Your task to perform on an android device: open a bookmark in the chrome app Image 0: 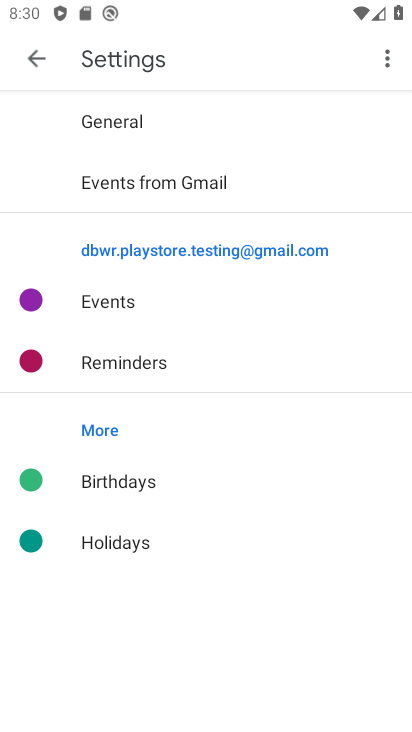
Step 0: press home button
Your task to perform on an android device: open a bookmark in the chrome app Image 1: 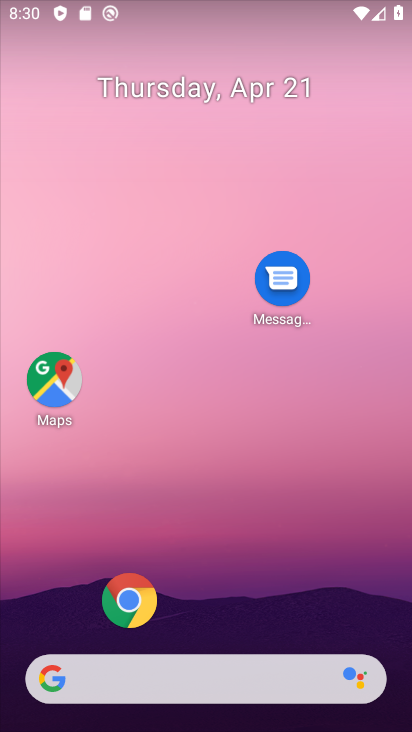
Step 1: click (128, 595)
Your task to perform on an android device: open a bookmark in the chrome app Image 2: 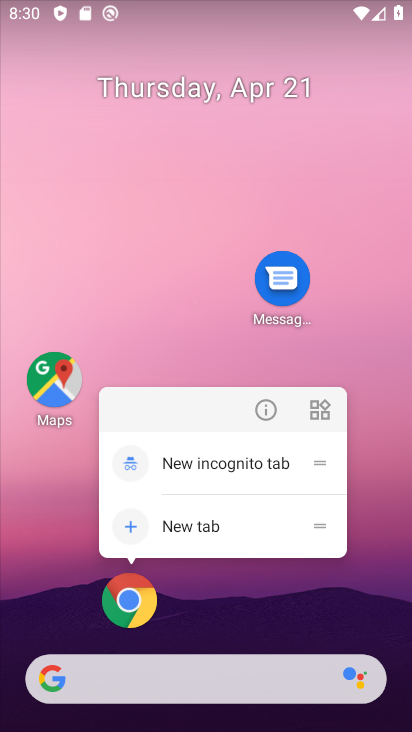
Step 2: click (128, 595)
Your task to perform on an android device: open a bookmark in the chrome app Image 3: 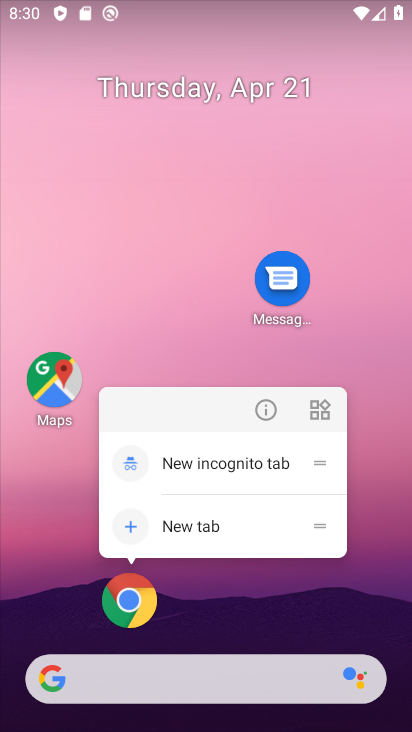
Step 3: click (263, 410)
Your task to perform on an android device: open a bookmark in the chrome app Image 4: 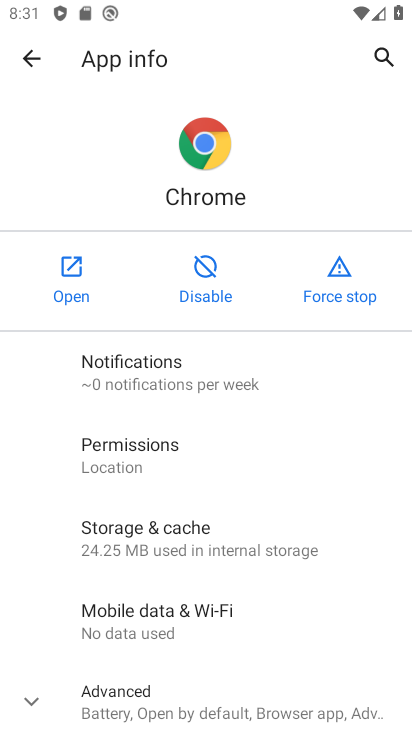
Step 4: click (77, 277)
Your task to perform on an android device: open a bookmark in the chrome app Image 5: 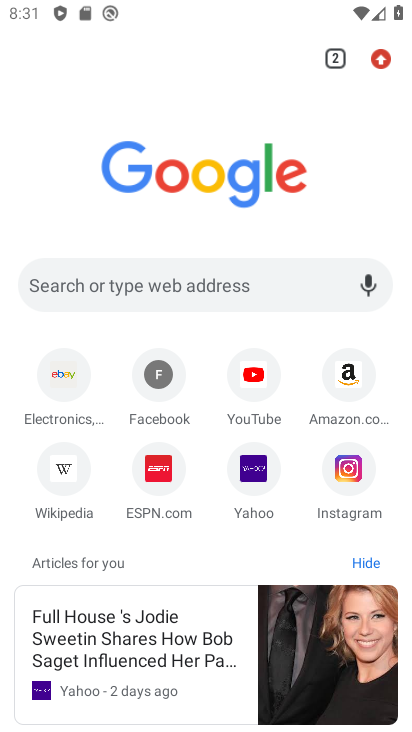
Step 5: drag from (389, 314) to (391, 58)
Your task to perform on an android device: open a bookmark in the chrome app Image 6: 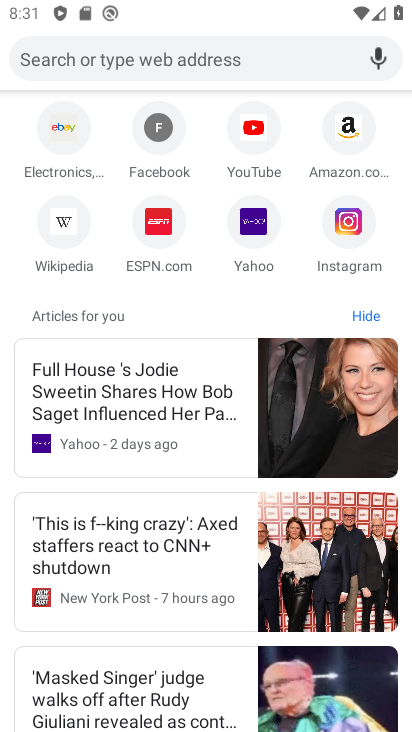
Step 6: click (344, 198)
Your task to perform on an android device: open a bookmark in the chrome app Image 7: 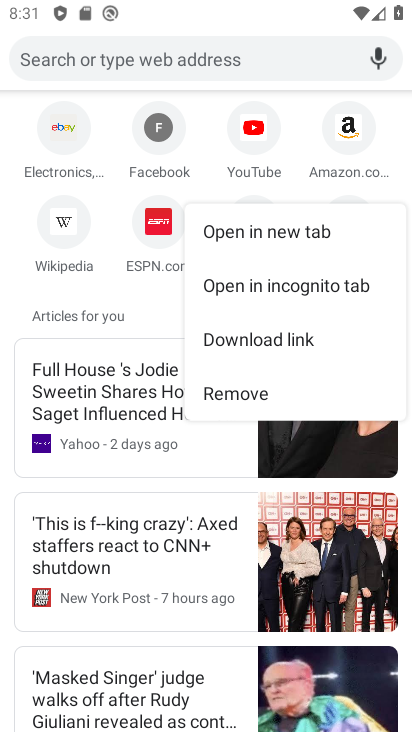
Step 7: press back button
Your task to perform on an android device: open a bookmark in the chrome app Image 8: 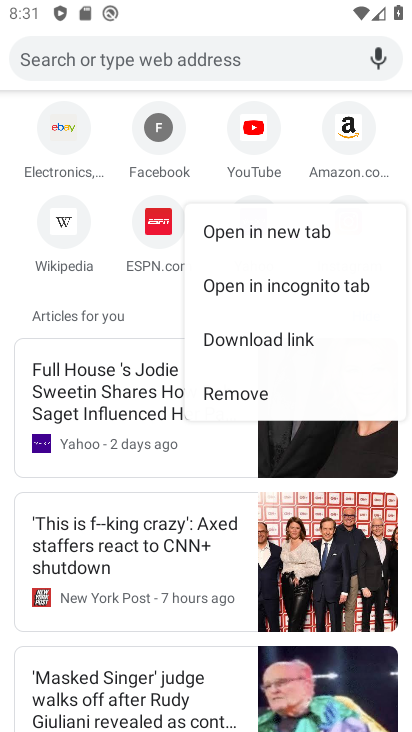
Step 8: click (344, 198)
Your task to perform on an android device: open a bookmark in the chrome app Image 9: 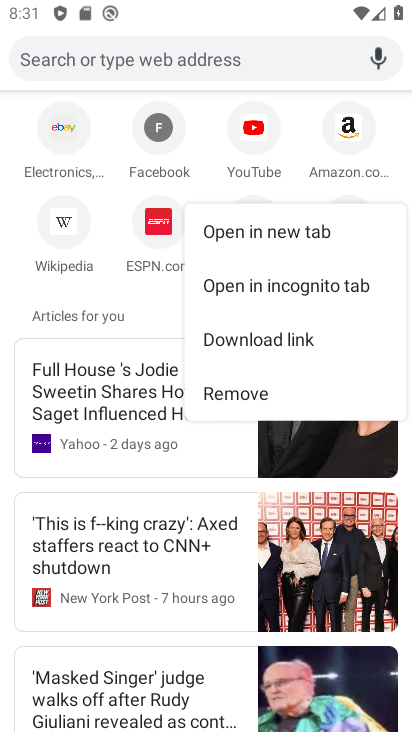
Step 9: press home button
Your task to perform on an android device: open a bookmark in the chrome app Image 10: 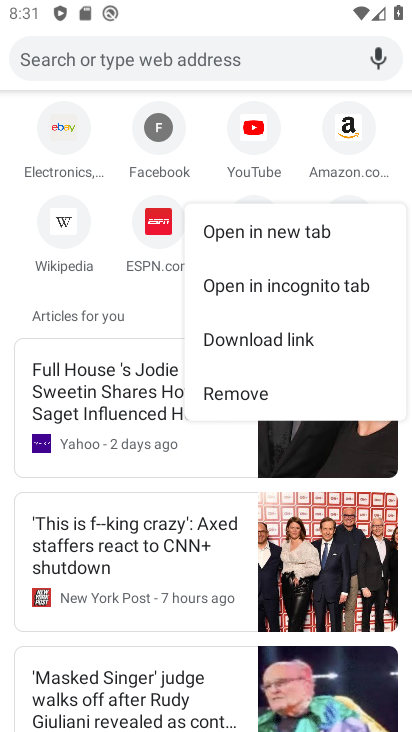
Step 10: drag from (344, 198) to (407, 441)
Your task to perform on an android device: open a bookmark in the chrome app Image 11: 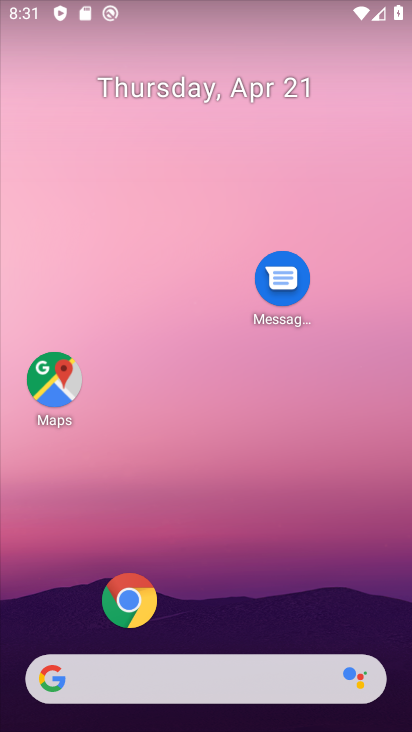
Step 11: click (101, 596)
Your task to perform on an android device: open a bookmark in the chrome app Image 12: 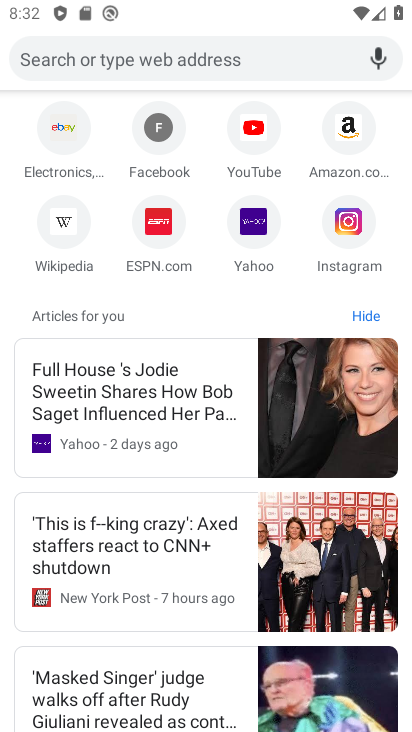
Step 12: drag from (255, 65) to (373, 415)
Your task to perform on an android device: open a bookmark in the chrome app Image 13: 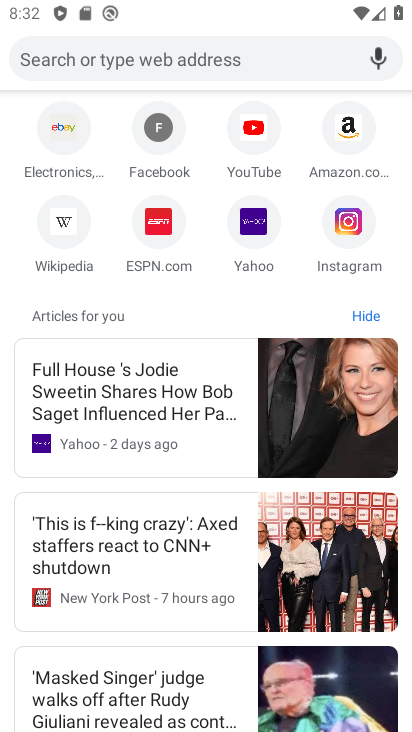
Step 13: drag from (182, 145) to (220, 392)
Your task to perform on an android device: open a bookmark in the chrome app Image 14: 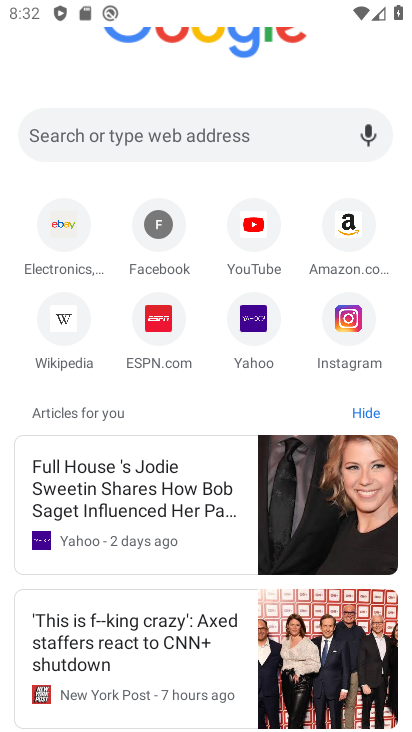
Step 14: drag from (254, 181) to (254, 410)
Your task to perform on an android device: open a bookmark in the chrome app Image 15: 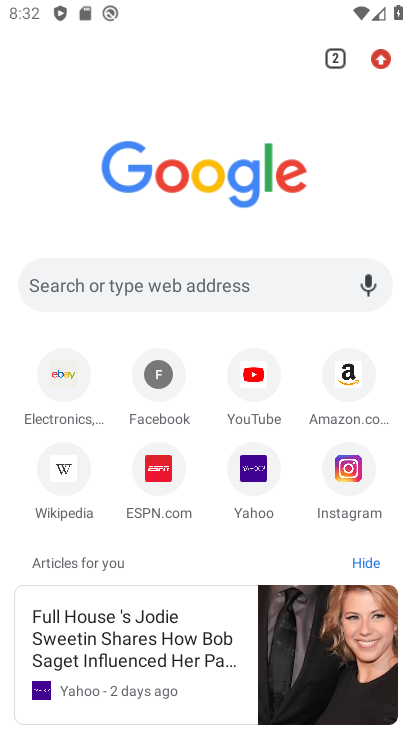
Step 15: drag from (182, 134) to (140, 425)
Your task to perform on an android device: open a bookmark in the chrome app Image 16: 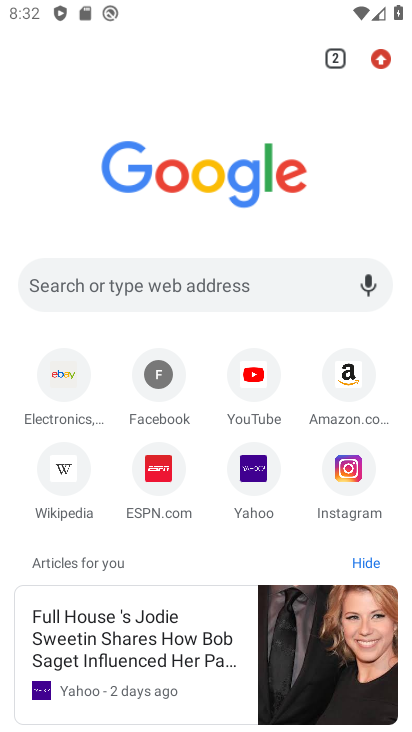
Step 16: drag from (361, 88) to (392, 413)
Your task to perform on an android device: open a bookmark in the chrome app Image 17: 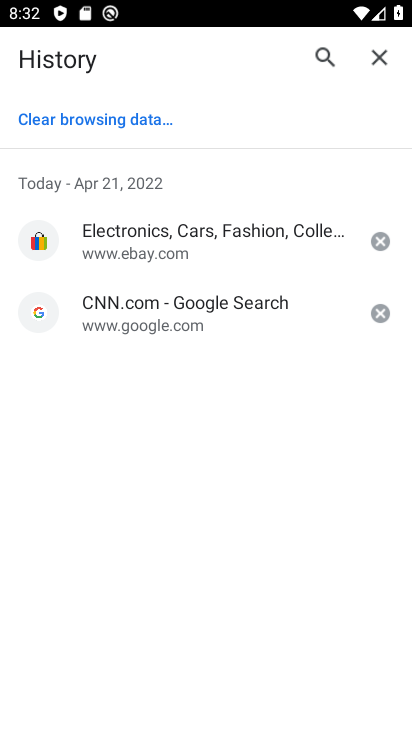
Step 17: click (377, 53)
Your task to perform on an android device: open a bookmark in the chrome app Image 18: 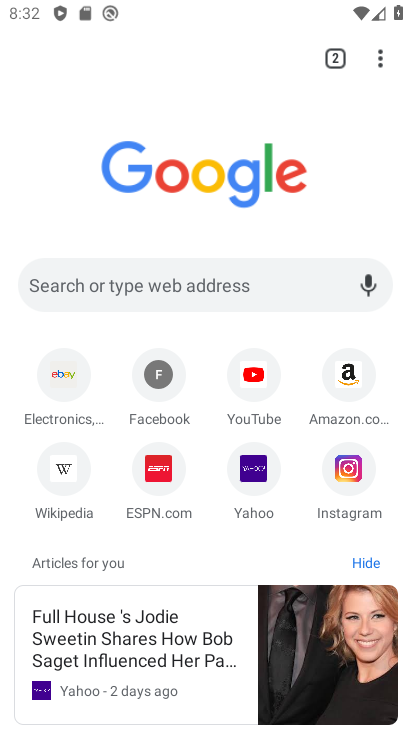
Step 18: click (375, 55)
Your task to perform on an android device: open a bookmark in the chrome app Image 19: 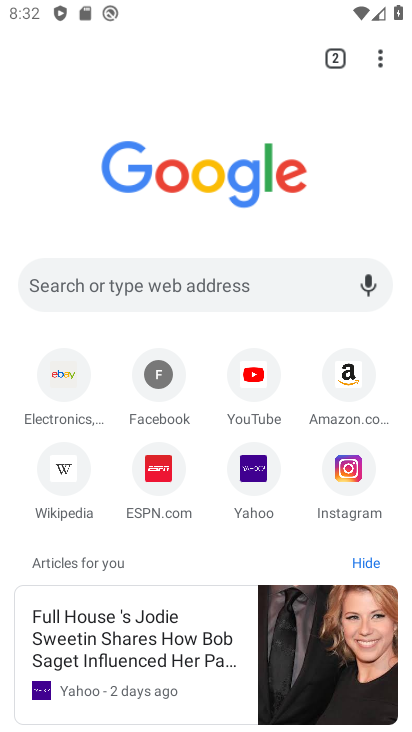
Step 19: click (375, 65)
Your task to perform on an android device: open a bookmark in the chrome app Image 20: 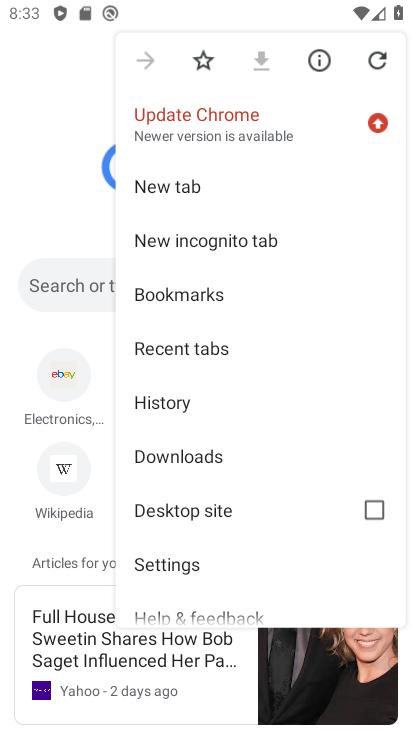
Step 20: click (191, 297)
Your task to perform on an android device: open a bookmark in the chrome app Image 21: 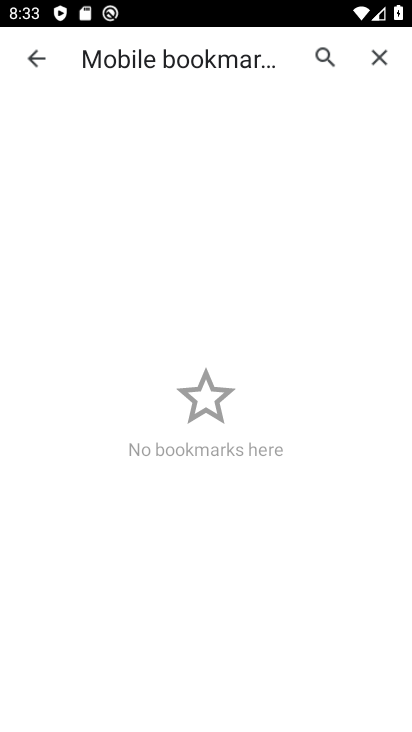
Step 21: task complete